Your task to perform on an android device: Open calendar and show me the first week of next month Image 0: 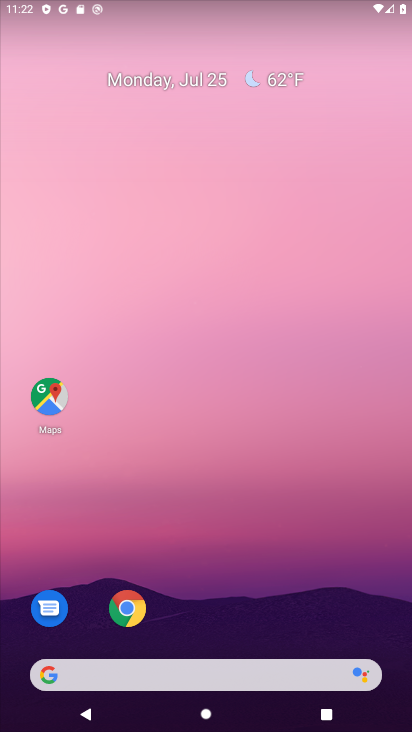
Step 0: drag from (244, 609) to (324, 160)
Your task to perform on an android device: Open calendar and show me the first week of next month Image 1: 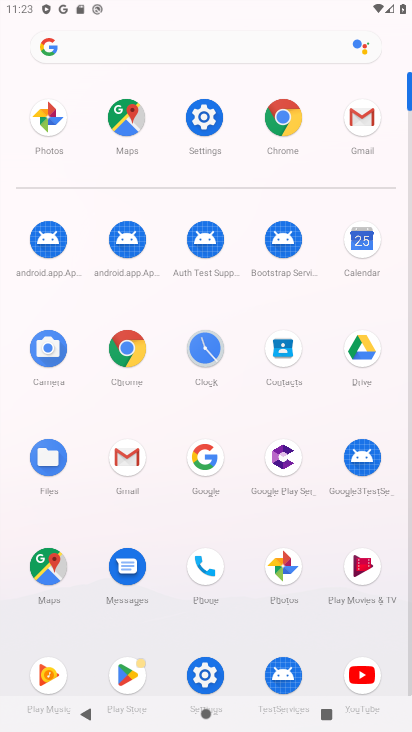
Step 1: click (359, 124)
Your task to perform on an android device: Open calendar and show me the first week of next month Image 2: 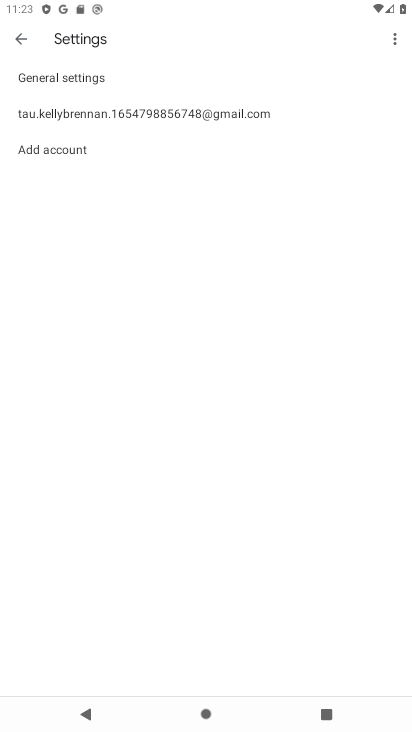
Step 2: click (20, 37)
Your task to perform on an android device: Open calendar and show me the first week of next month Image 3: 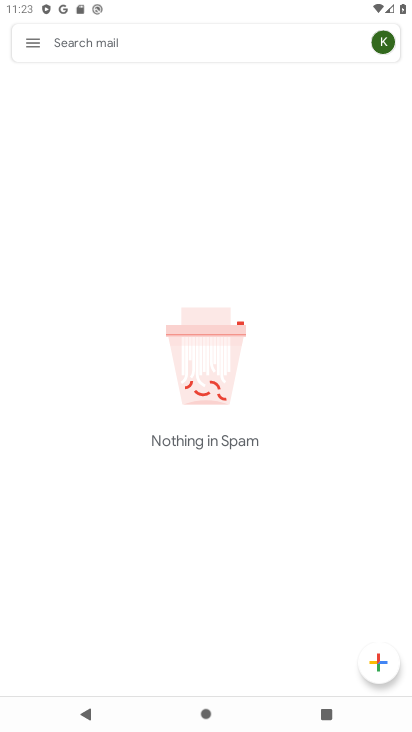
Step 3: press home button
Your task to perform on an android device: Open calendar and show me the first week of next month Image 4: 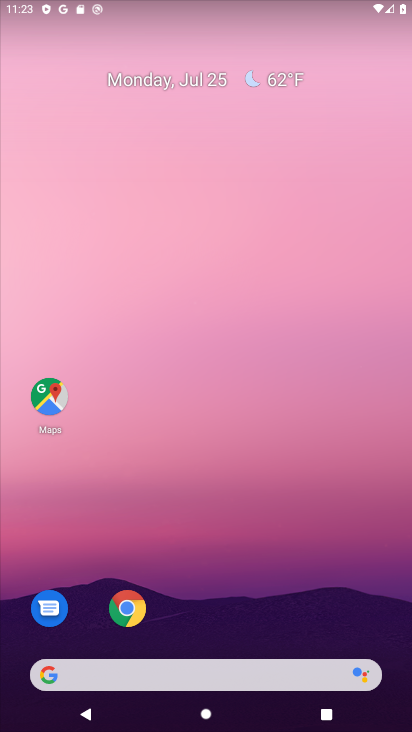
Step 4: drag from (252, 545) to (346, 138)
Your task to perform on an android device: Open calendar and show me the first week of next month Image 5: 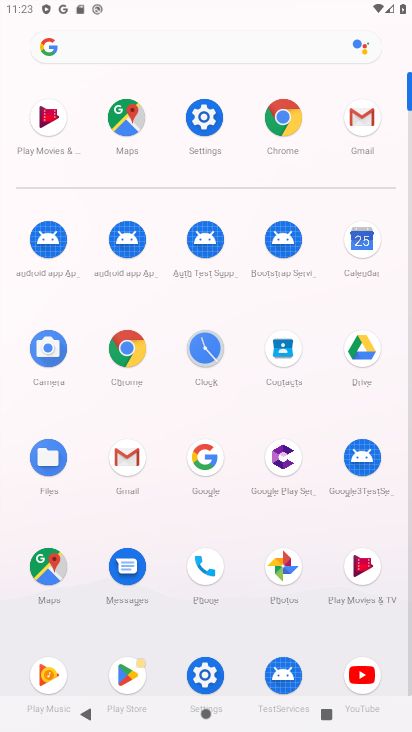
Step 5: click (365, 250)
Your task to perform on an android device: Open calendar and show me the first week of next month Image 6: 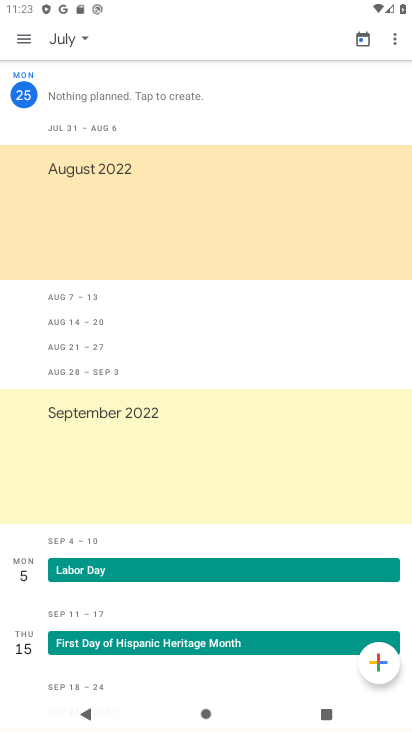
Step 6: task complete